Your task to perform on an android device: turn off picture-in-picture Image 0: 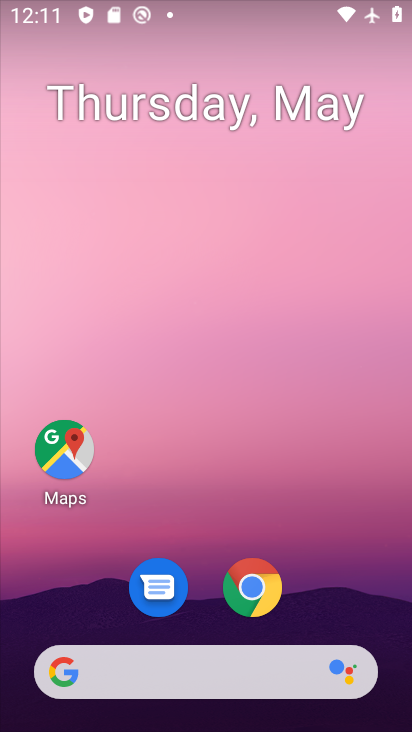
Step 0: drag from (241, 618) to (325, 109)
Your task to perform on an android device: turn off picture-in-picture Image 1: 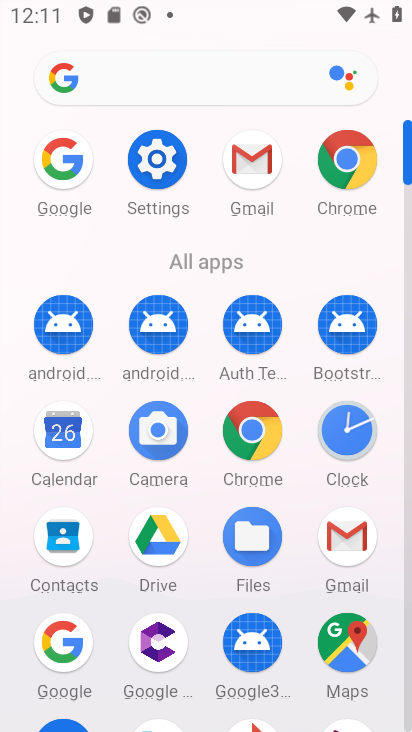
Step 1: click (167, 169)
Your task to perform on an android device: turn off picture-in-picture Image 2: 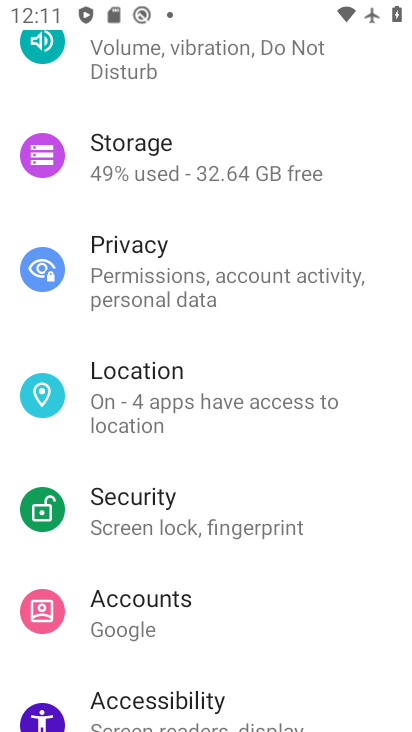
Step 2: drag from (279, 198) to (335, 687)
Your task to perform on an android device: turn off picture-in-picture Image 3: 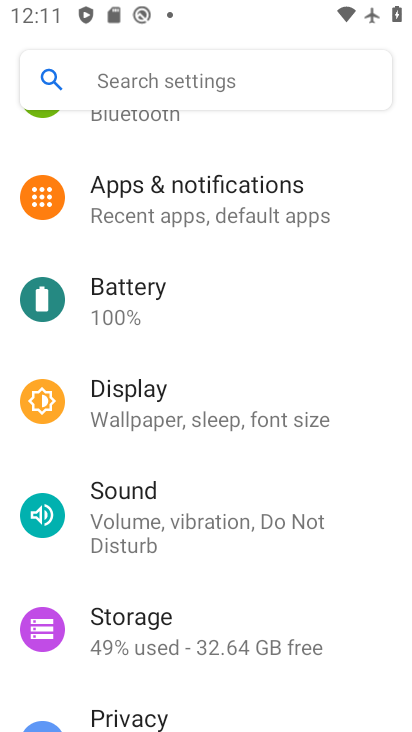
Step 3: click (291, 204)
Your task to perform on an android device: turn off picture-in-picture Image 4: 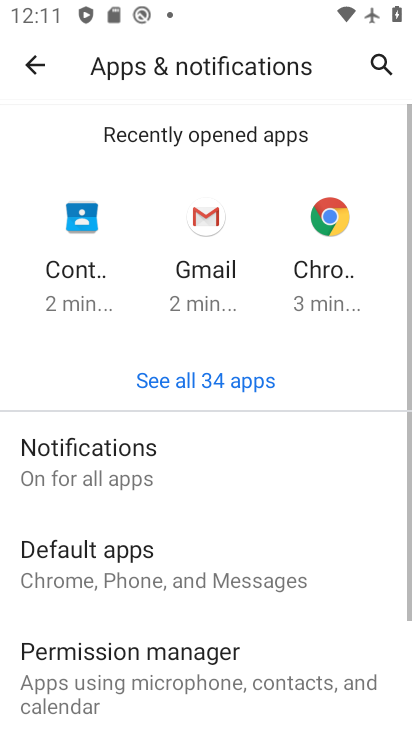
Step 4: drag from (294, 673) to (370, 191)
Your task to perform on an android device: turn off picture-in-picture Image 5: 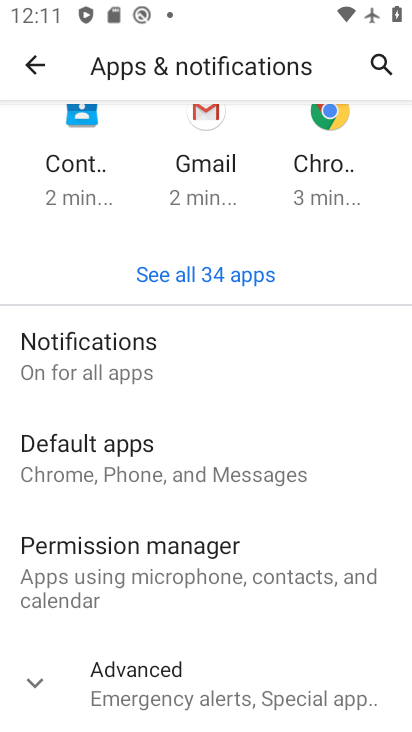
Step 5: click (356, 702)
Your task to perform on an android device: turn off picture-in-picture Image 6: 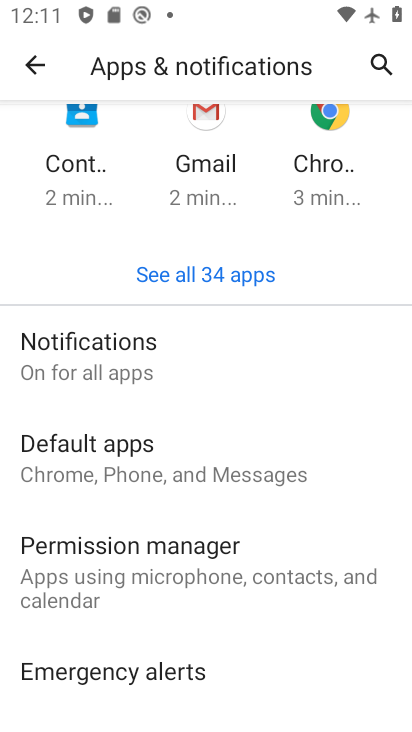
Step 6: drag from (356, 702) to (372, 387)
Your task to perform on an android device: turn off picture-in-picture Image 7: 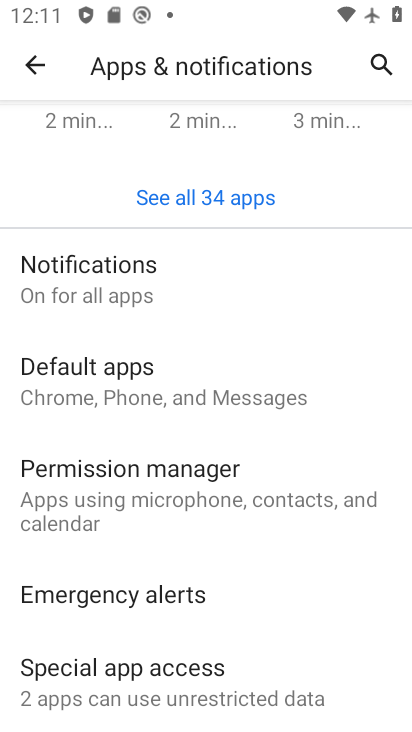
Step 7: click (225, 661)
Your task to perform on an android device: turn off picture-in-picture Image 8: 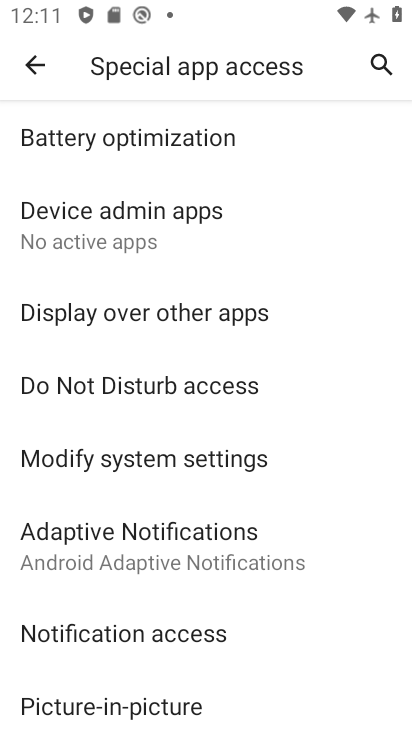
Step 8: click (265, 698)
Your task to perform on an android device: turn off picture-in-picture Image 9: 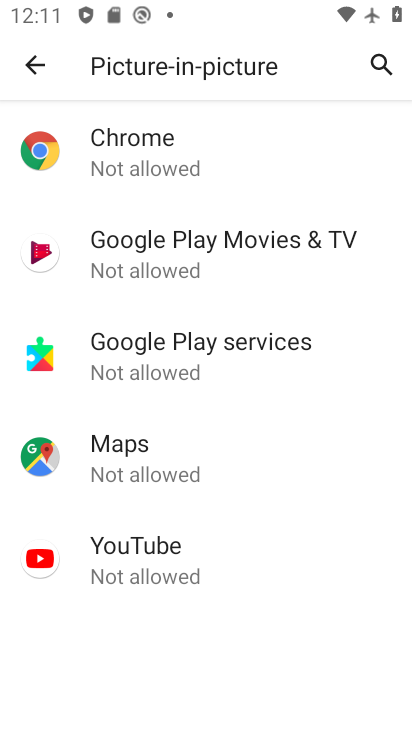
Step 9: task complete